Your task to perform on an android device: Open the map Image 0: 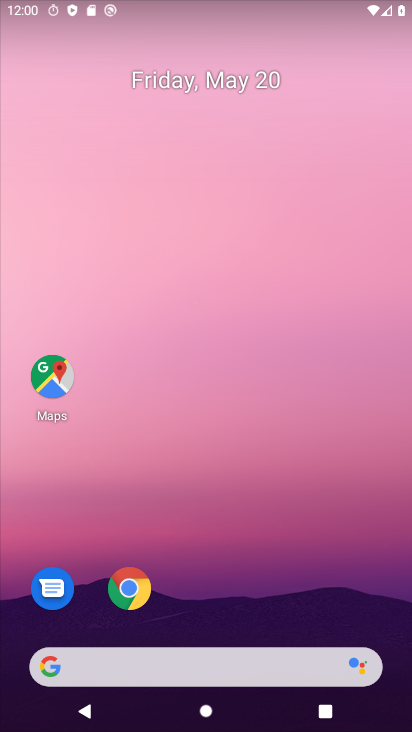
Step 0: click (47, 390)
Your task to perform on an android device: Open the map Image 1: 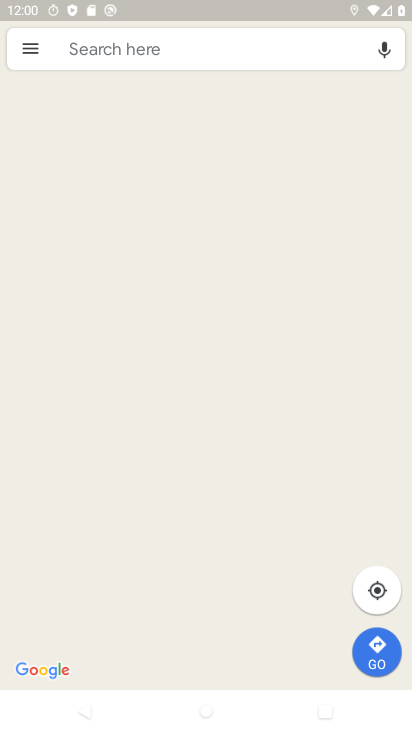
Step 1: task complete